Your task to perform on an android device: Show me popular videos on Youtube Image 0: 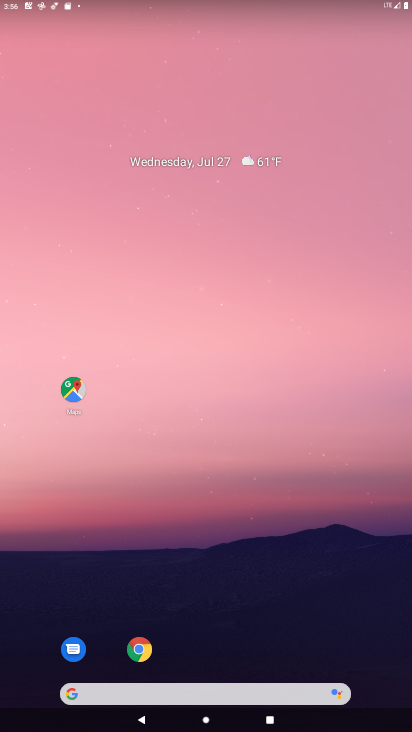
Step 0: drag from (208, 383) to (246, 105)
Your task to perform on an android device: Show me popular videos on Youtube Image 1: 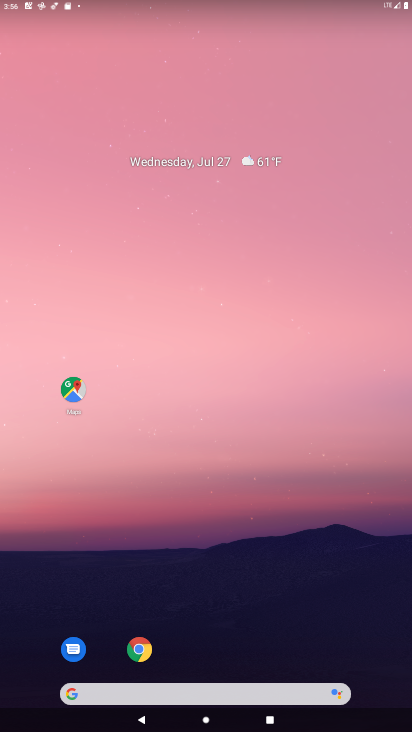
Step 1: drag from (180, 622) to (187, 98)
Your task to perform on an android device: Show me popular videos on Youtube Image 2: 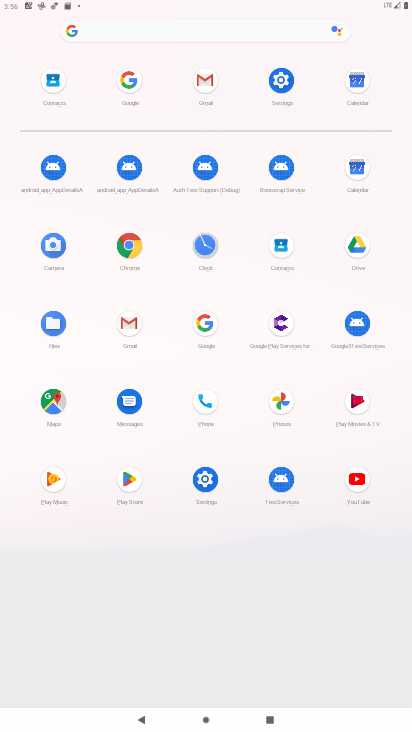
Step 2: click (351, 488)
Your task to perform on an android device: Show me popular videos on Youtube Image 3: 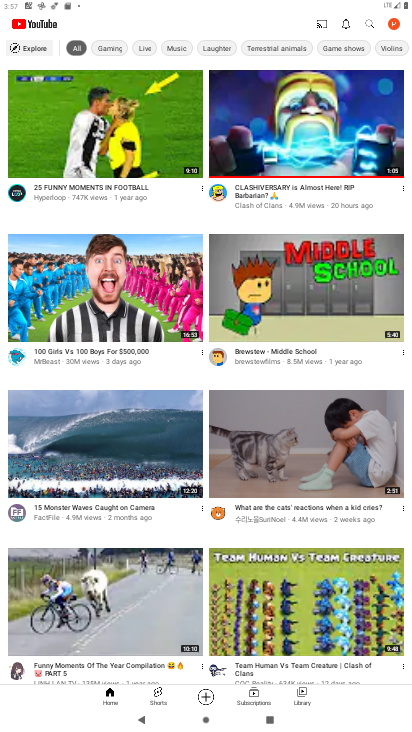
Step 3: task complete